Your task to perform on an android device: open device folders in google photos Image 0: 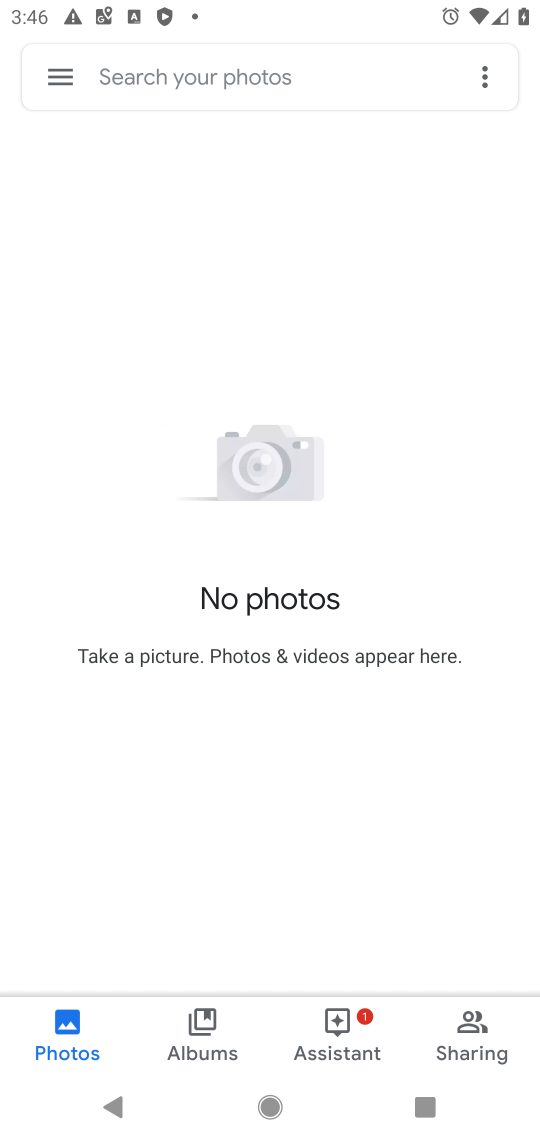
Step 0: press home button
Your task to perform on an android device: open device folders in google photos Image 1: 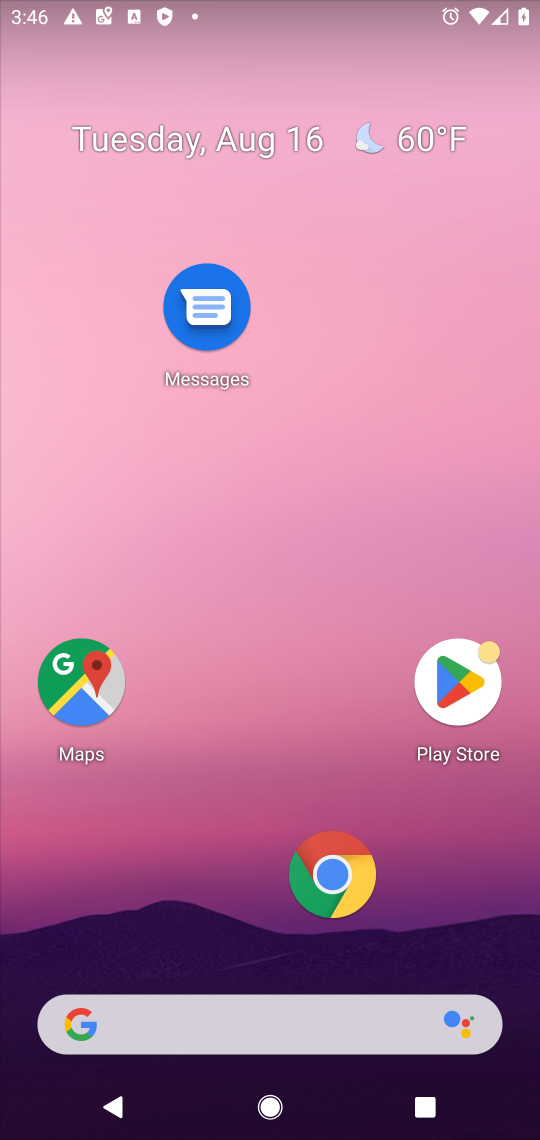
Step 1: drag from (175, 390) to (181, 175)
Your task to perform on an android device: open device folders in google photos Image 2: 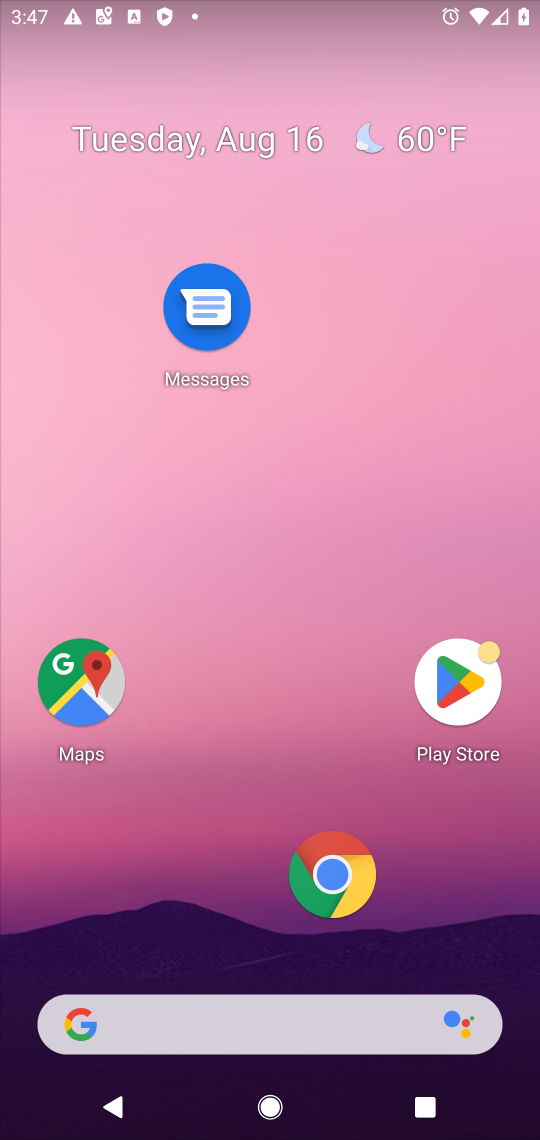
Step 2: drag from (256, 970) to (115, 77)
Your task to perform on an android device: open device folders in google photos Image 3: 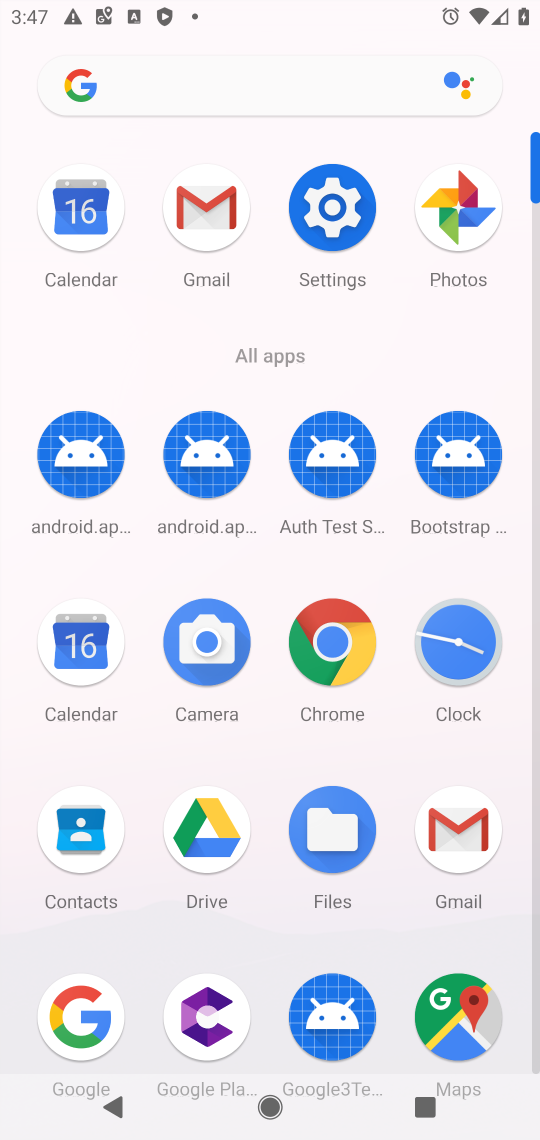
Step 3: click (446, 195)
Your task to perform on an android device: open device folders in google photos Image 4: 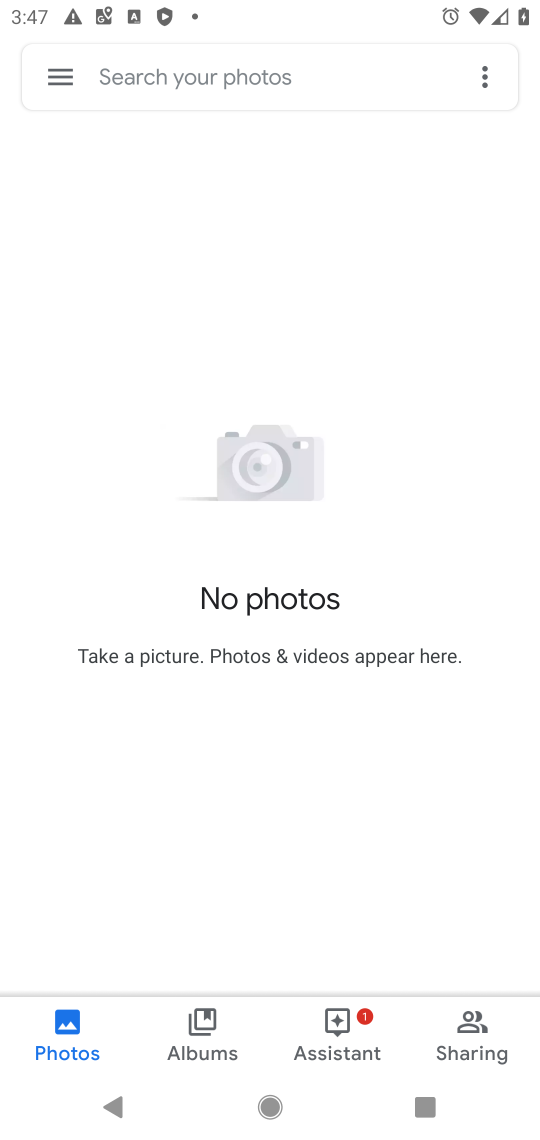
Step 4: task complete